Your task to perform on an android device: open app "DoorDash - Dasher" Image 0: 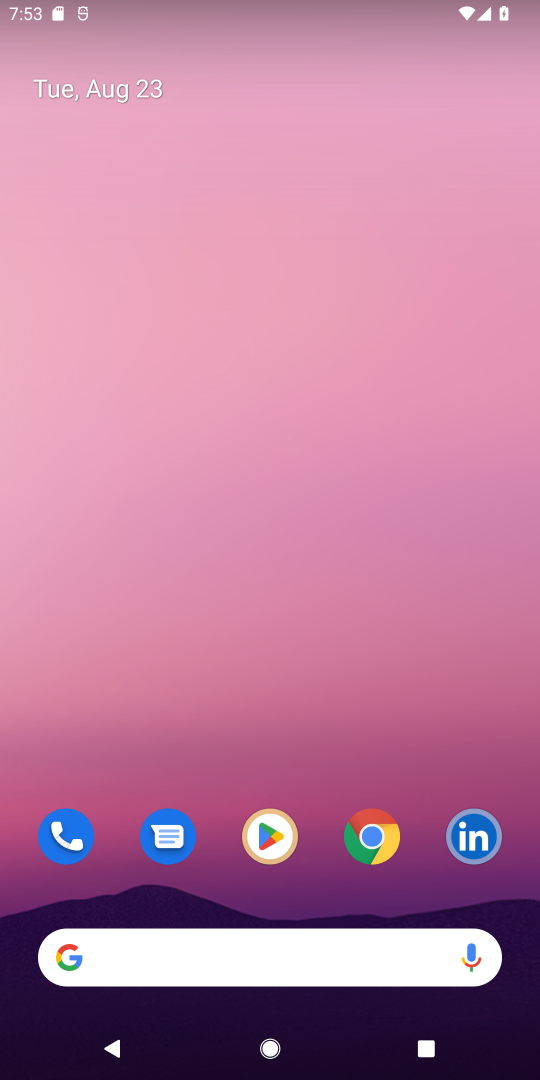
Step 0: click (261, 840)
Your task to perform on an android device: open app "DoorDash - Dasher" Image 1: 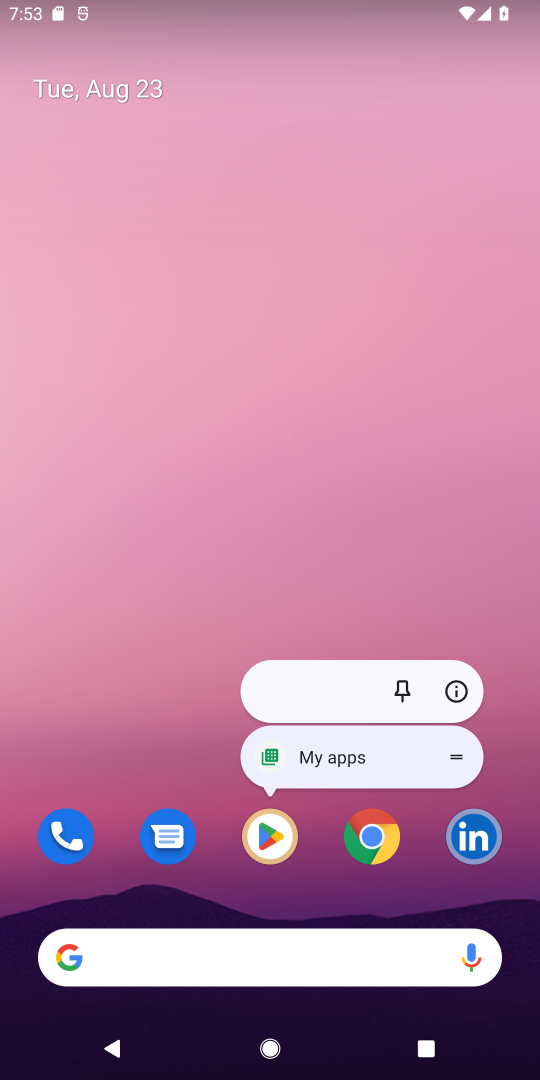
Step 1: click (280, 831)
Your task to perform on an android device: open app "DoorDash - Dasher" Image 2: 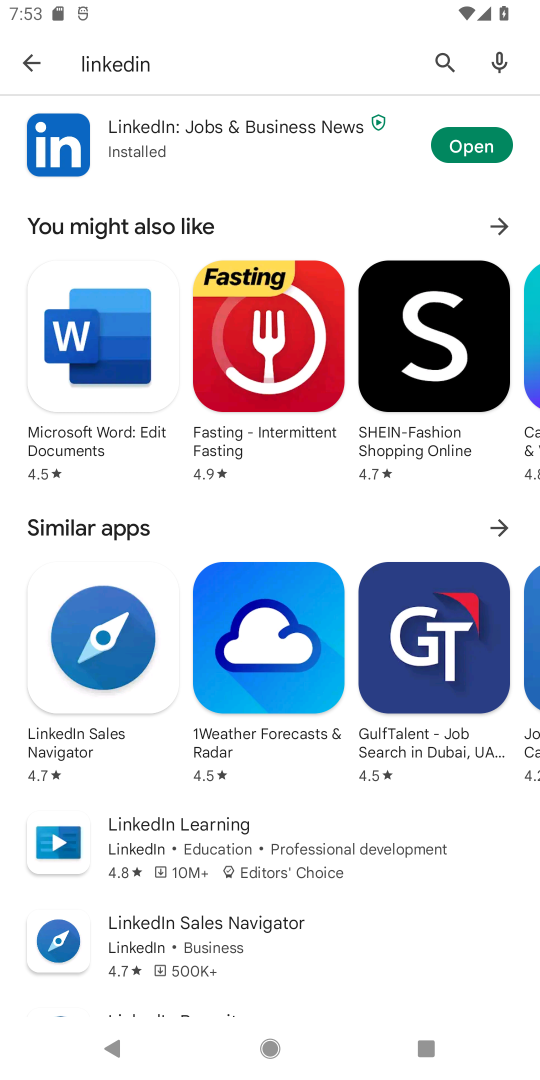
Step 2: click (451, 62)
Your task to perform on an android device: open app "DoorDash - Dasher" Image 3: 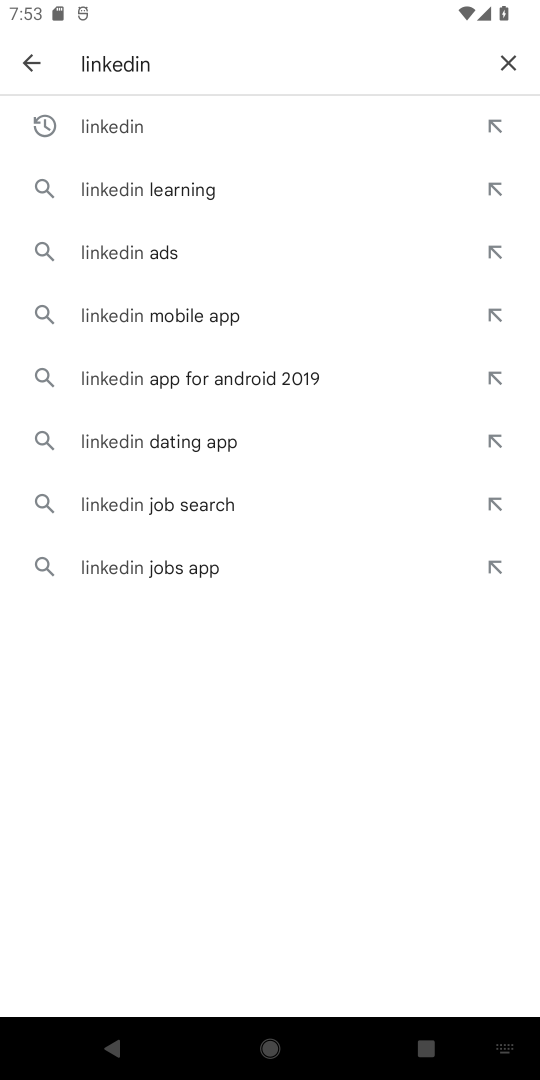
Step 3: click (513, 51)
Your task to perform on an android device: open app "DoorDash - Dasher" Image 4: 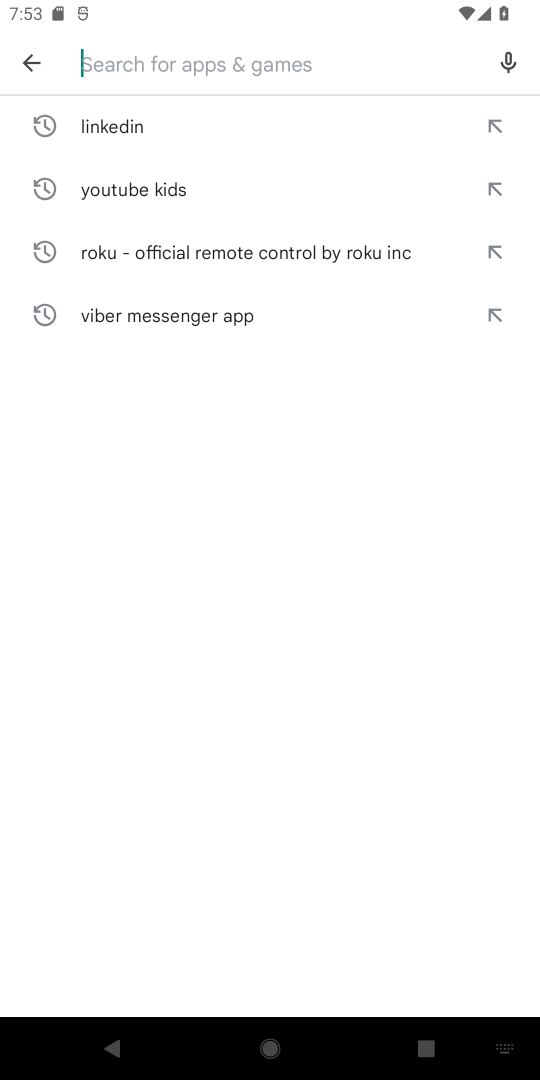
Step 4: type "DoorDash - Dasher"
Your task to perform on an android device: open app "DoorDash - Dasher" Image 5: 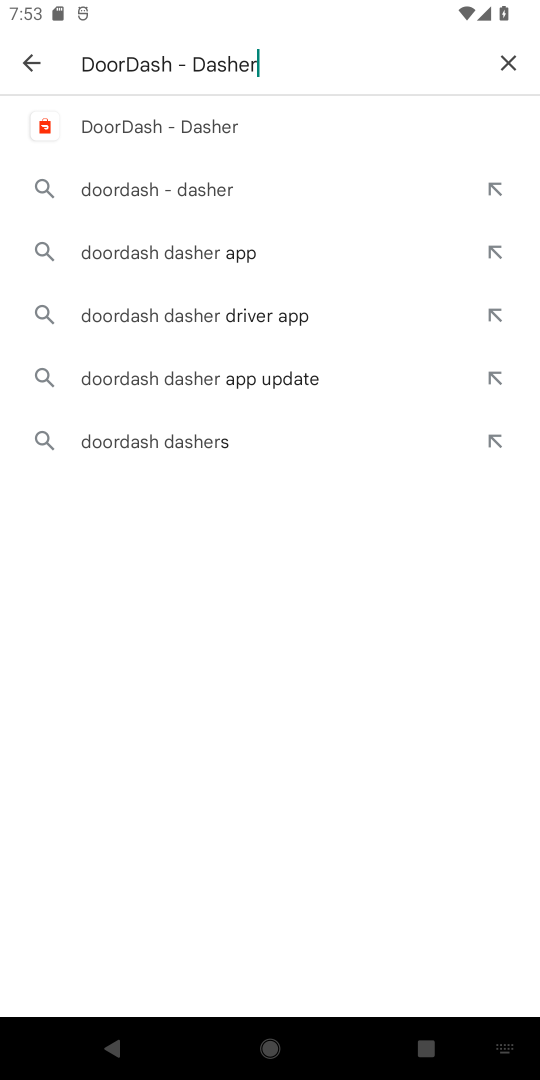
Step 5: click (136, 136)
Your task to perform on an android device: open app "DoorDash - Dasher" Image 6: 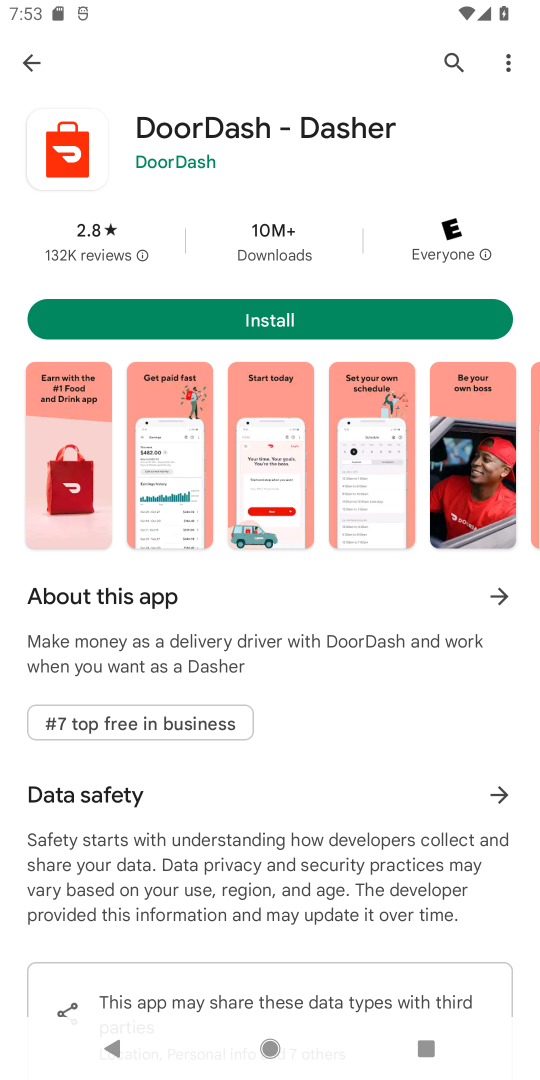
Step 6: task complete